Your task to perform on an android device: add a label to a message in the gmail app Image 0: 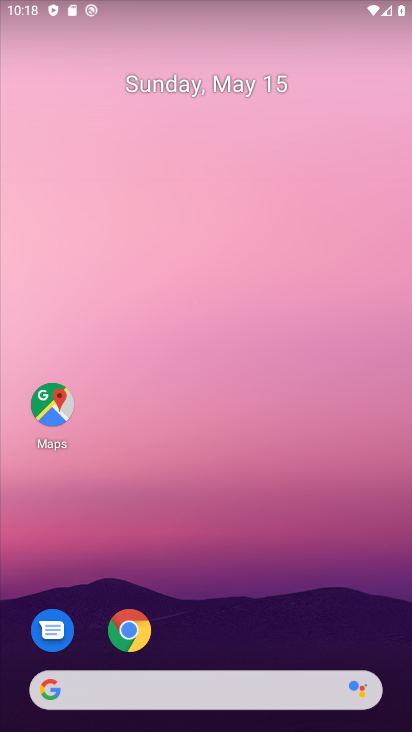
Step 0: drag from (227, 652) to (322, 132)
Your task to perform on an android device: add a label to a message in the gmail app Image 1: 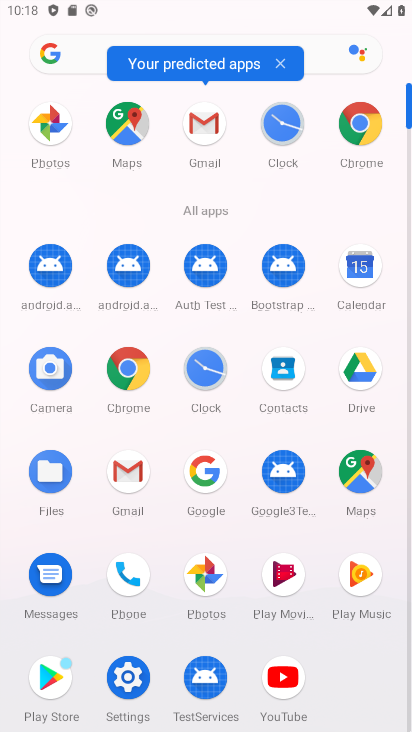
Step 1: click (214, 131)
Your task to perform on an android device: add a label to a message in the gmail app Image 2: 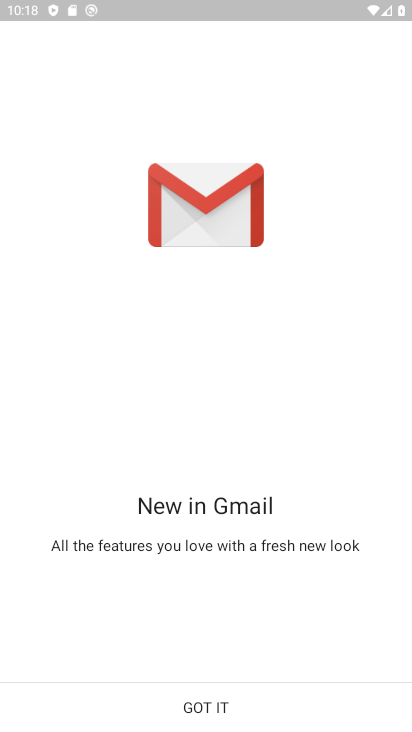
Step 2: click (181, 730)
Your task to perform on an android device: add a label to a message in the gmail app Image 3: 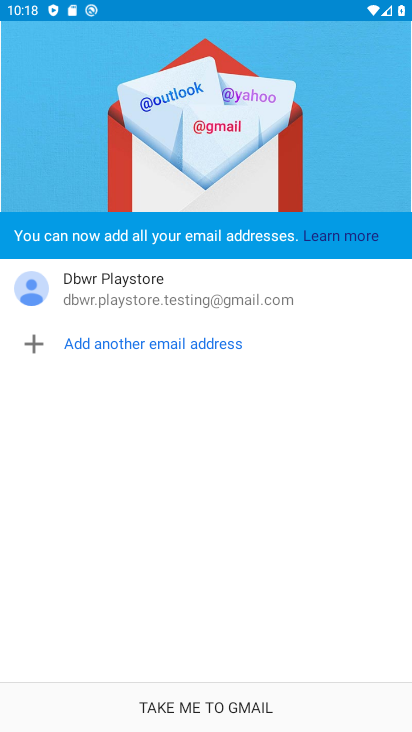
Step 3: click (185, 721)
Your task to perform on an android device: add a label to a message in the gmail app Image 4: 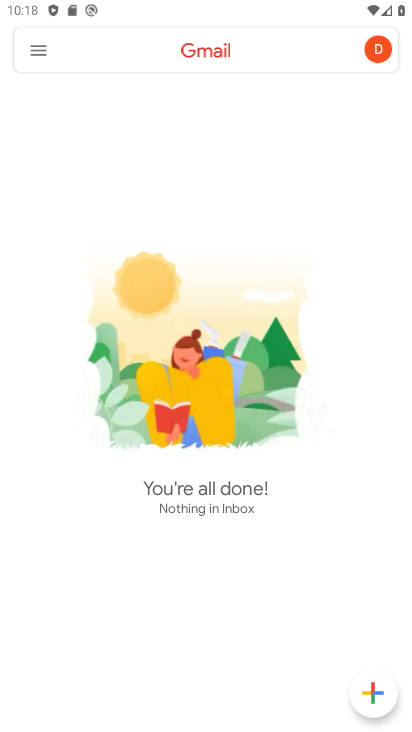
Step 4: click (44, 55)
Your task to perform on an android device: add a label to a message in the gmail app Image 5: 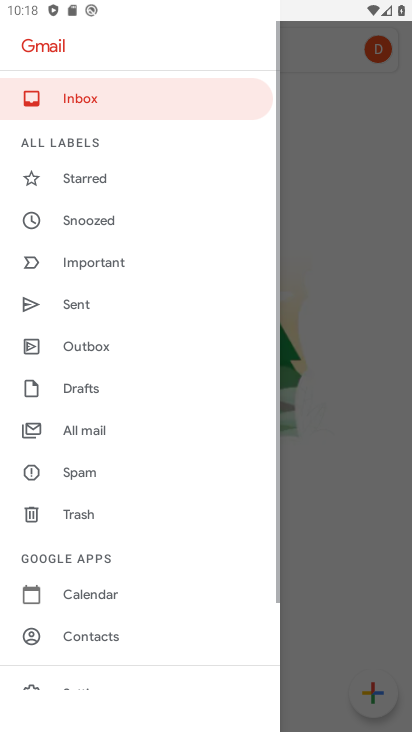
Step 5: click (115, 417)
Your task to perform on an android device: add a label to a message in the gmail app Image 6: 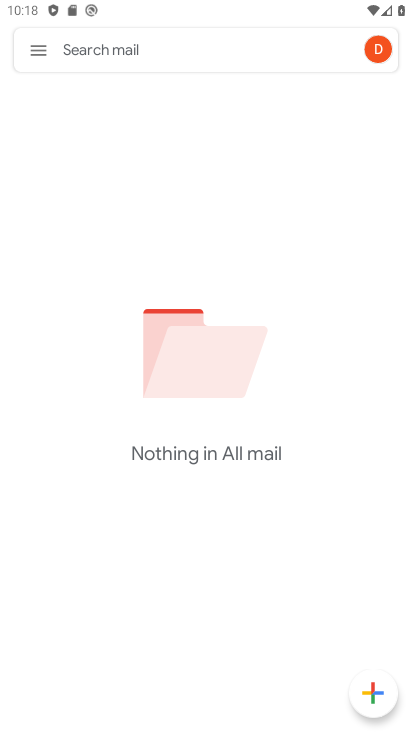
Step 6: task complete